Your task to perform on an android device: Search for pizza restaurants on Maps Image 0: 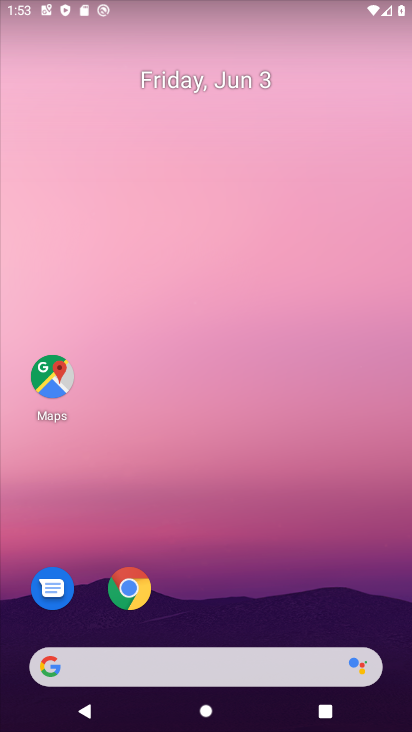
Step 0: drag from (204, 567) to (219, 145)
Your task to perform on an android device: Search for pizza restaurants on Maps Image 1: 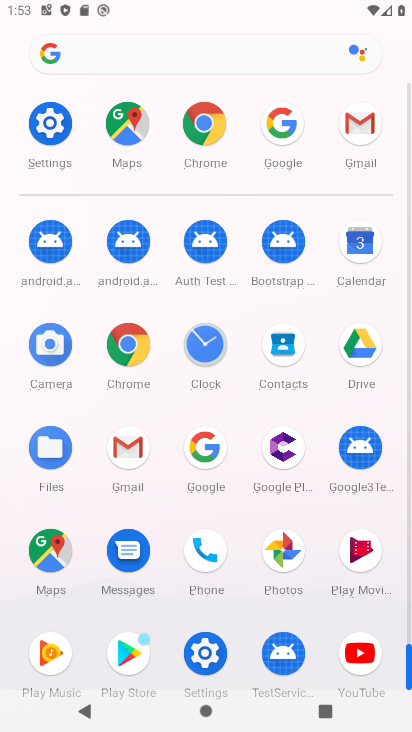
Step 1: click (43, 564)
Your task to perform on an android device: Search for pizza restaurants on Maps Image 2: 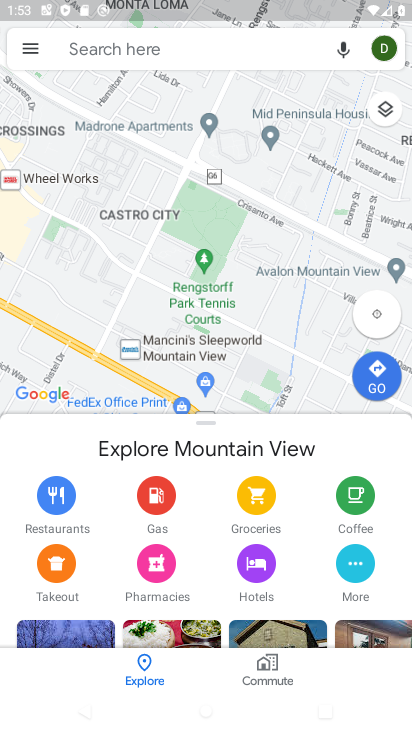
Step 2: click (143, 58)
Your task to perform on an android device: Search for pizza restaurants on Maps Image 3: 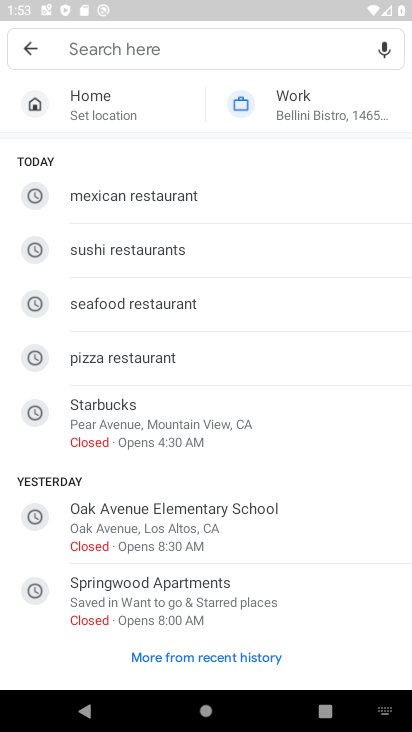
Step 3: click (166, 360)
Your task to perform on an android device: Search for pizza restaurants on Maps Image 4: 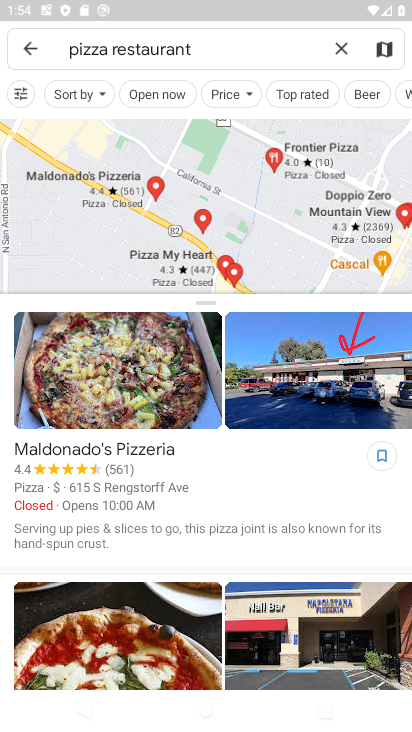
Step 4: task complete